Your task to perform on an android device: toggle translation in the chrome app Image 0: 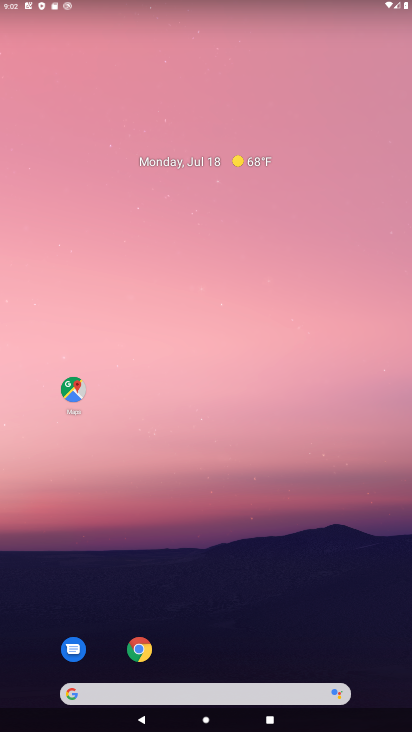
Step 0: drag from (169, 705) to (246, 125)
Your task to perform on an android device: toggle translation in the chrome app Image 1: 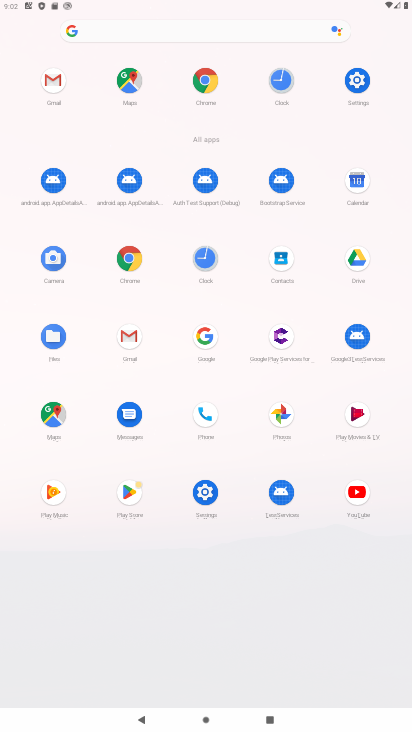
Step 1: click (121, 255)
Your task to perform on an android device: toggle translation in the chrome app Image 2: 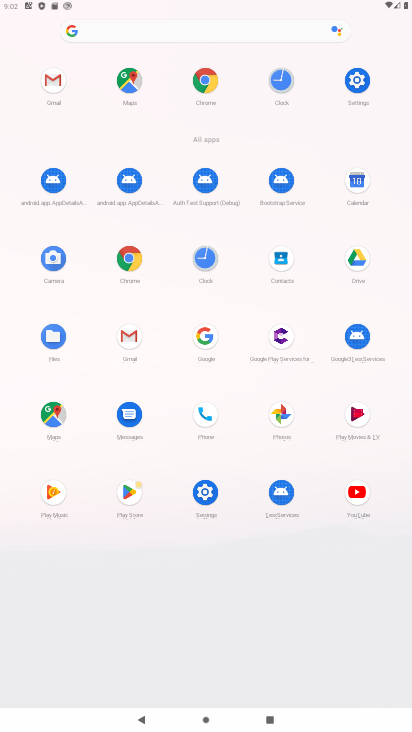
Step 2: click (121, 255)
Your task to perform on an android device: toggle translation in the chrome app Image 3: 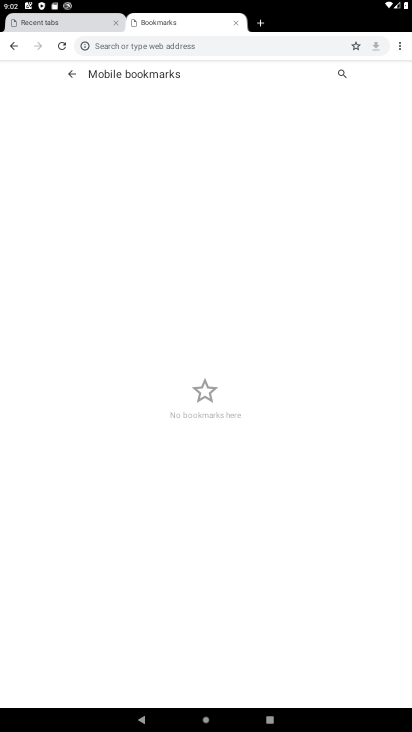
Step 3: click (398, 39)
Your task to perform on an android device: toggle translation in the chrome app Image 4: 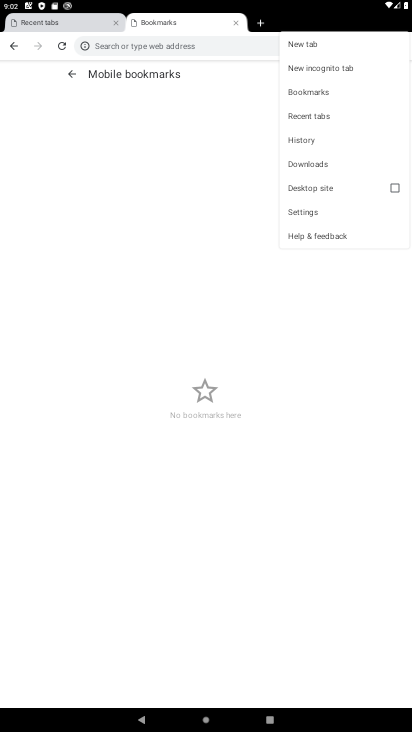
Step 4: click (295, 214)
Your task to perform on an android device: toggle translation in the chrome app Image 5: 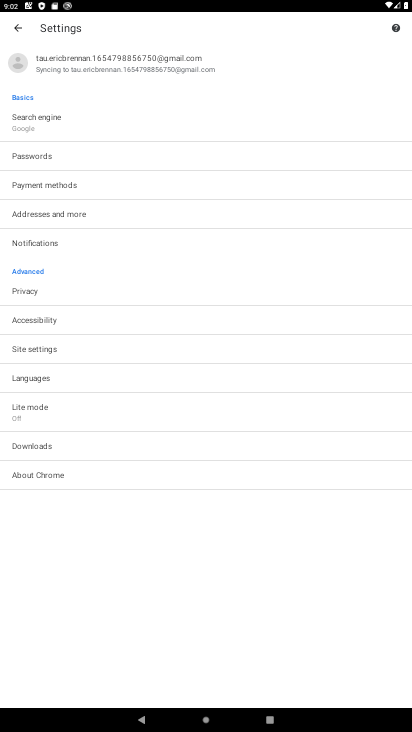
Step 5: click (38, 382)
Your task to perform on an android device: toggle translation in the chrome app Image 6: 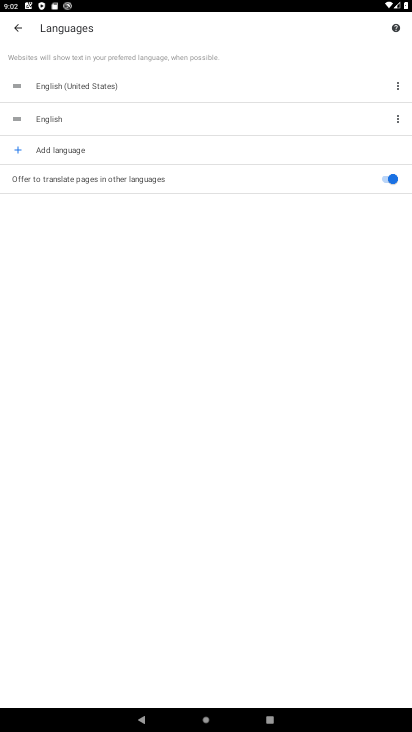
Step 6: click (392, 176)
Your task to perform on an android device: toggle translation in the chrome app Image 7: 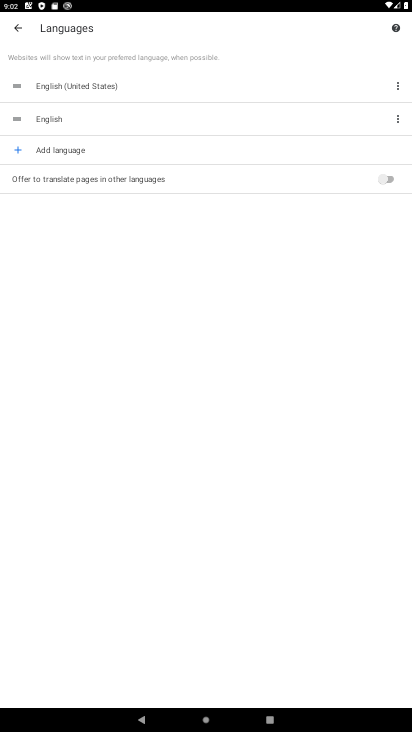
Step 7: task complete